Your task to perform on an android device: open chrome privacy settings Image 0: 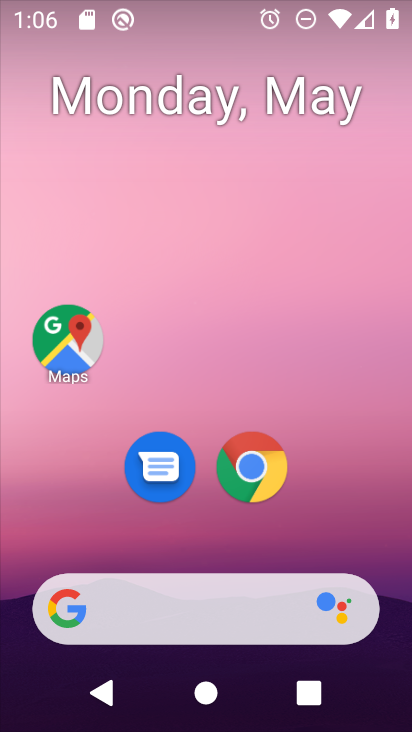
Step 0: click (258, 473)
Your task to perform on an android device: open chrome privacy settings Image 1: 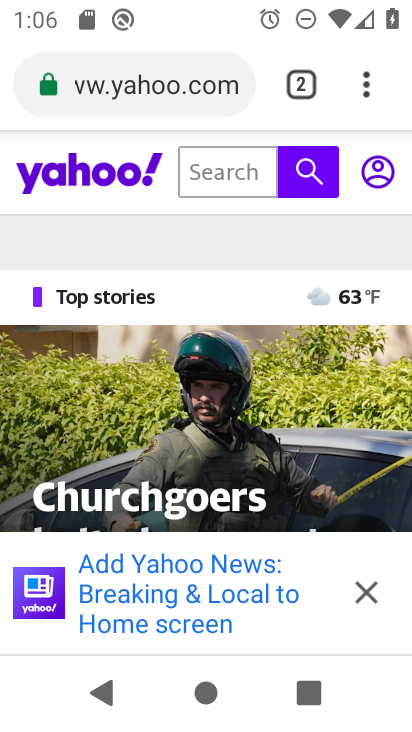
Step 1: click (369, 89)
Your task to perform on an android device: open chrome privacy settings Image 2: 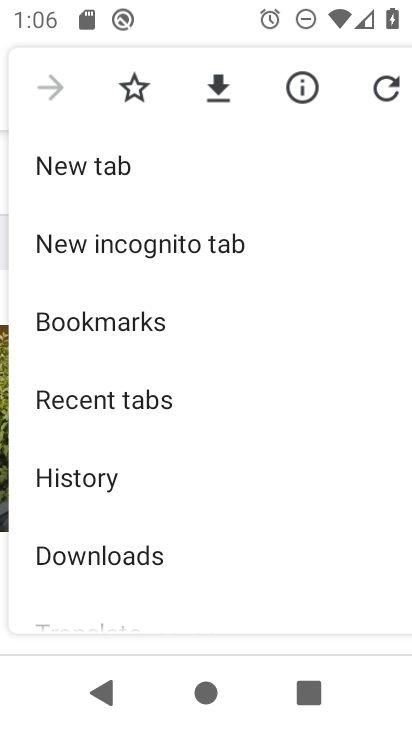
Step 2: drag from (260, 531) to (248, 96)
Your task to perform on an android device: open chrome privacy settings Image 3: 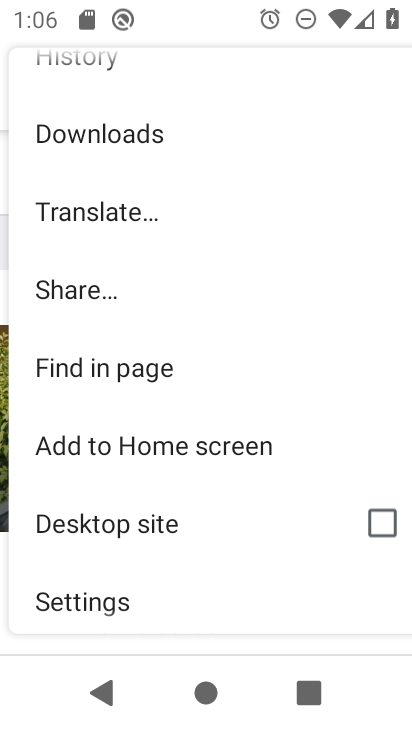
Step 3: drag from (204, 571) to (199, 202)
Your task to perform on an android device: open chrome privacy settings Image 4: 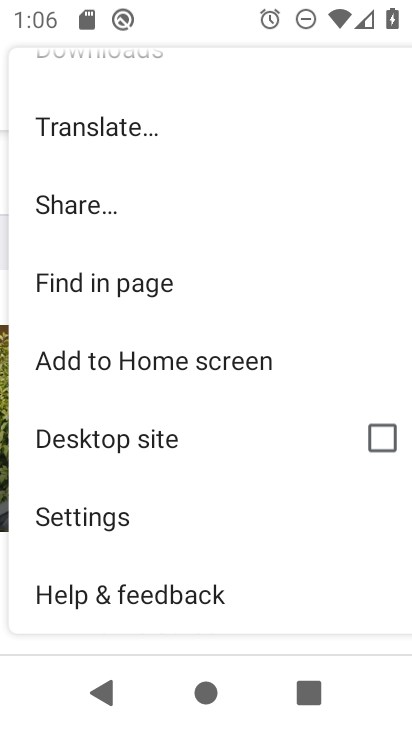
Step 4: click (81, 523)
Your task to perform on an android device: open chrome privacy settings Image 5: 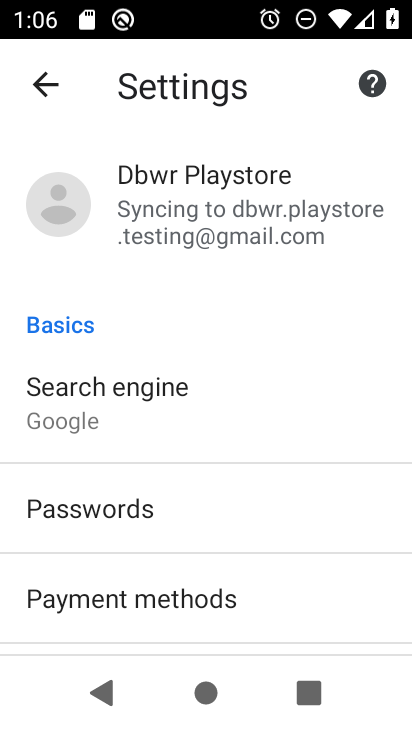
Step 5: drag from (286, 573) to (271, 128)
Your task to perform on an android device: open chrome privacy settings Image 6: 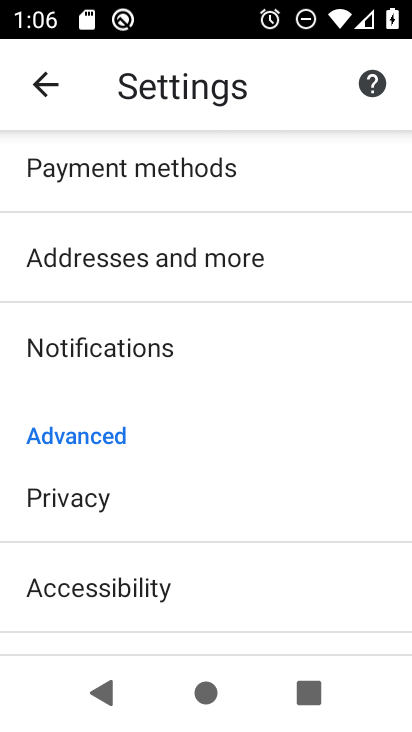
Step 6: drag from (243, 545) to (239, 258)
Your task to perform on an android device: open chrome privacy settings Image 7: 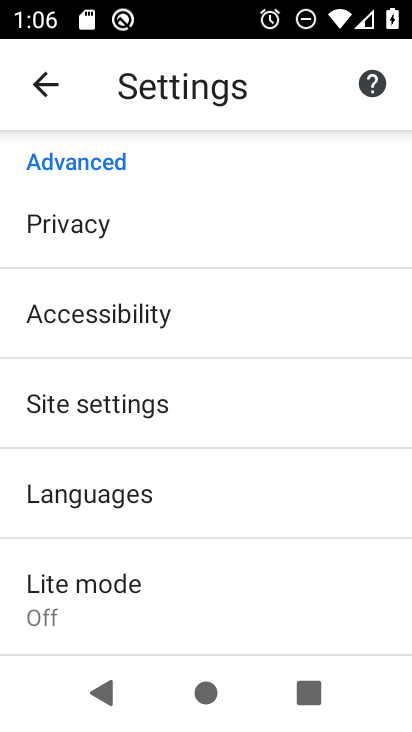
Step 7: click (66, 231)
Your task to perform on an android device: open chrome privacy settings Image 8: 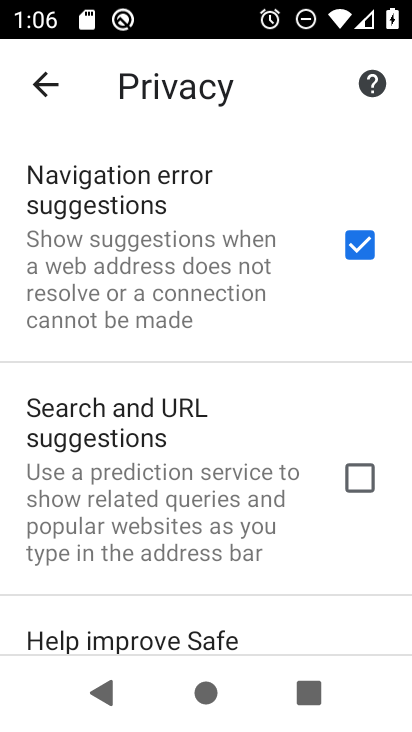
Step 8: task complete